Your task to perform on an android device: Open Amazon Image 0: 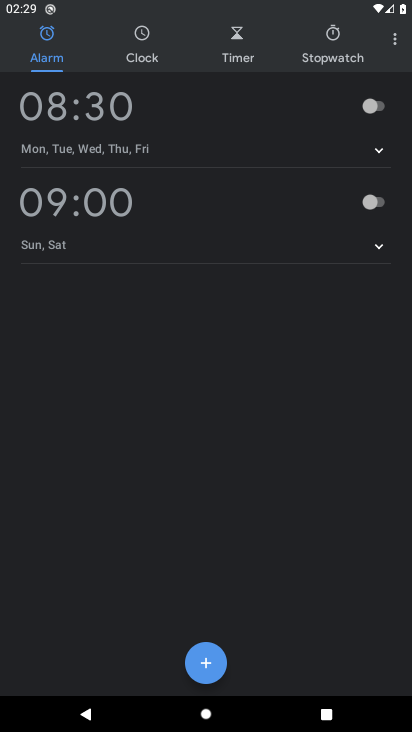
Step 0: press home button
Your task to perform on an android device: Open Amazon Image 1: 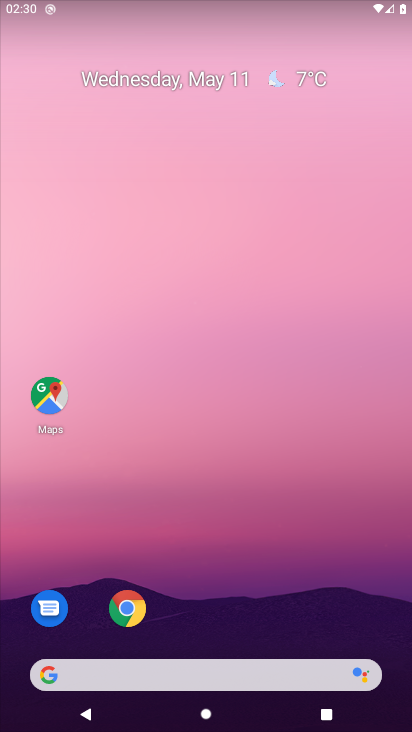
Step 1: click (132, 607)
Your task to perform on an android device: Open Amazon Image 2: 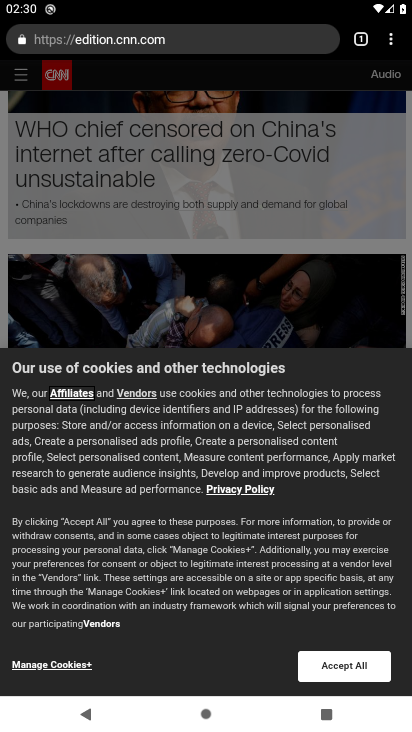
Step 2: click (367, 28)
Your task to perform on an android device: Open Amazon Image 3: 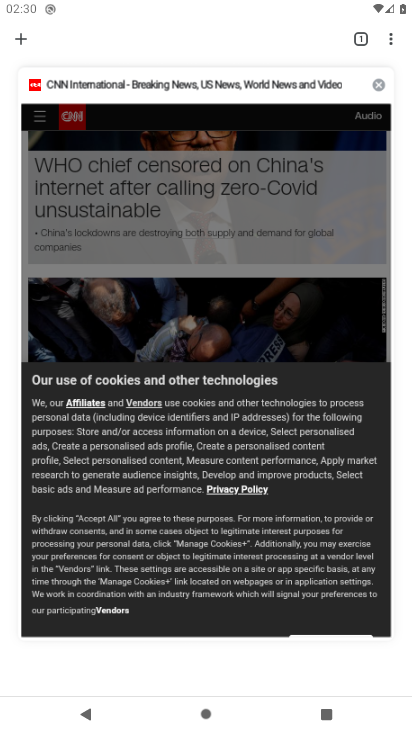
Step 3: click (376, 78)
Your task to perform on an android device: Open Amazon Image 4: 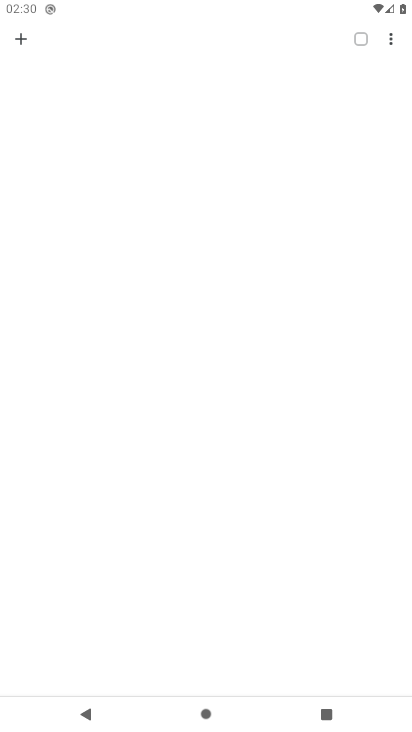
Step 4: click (18, 35)
Your task to perform on an android device: Open Amazon Image 5: 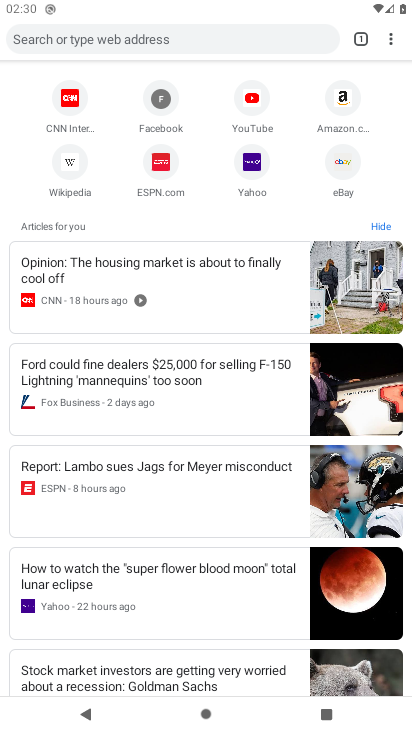
Step 5: click (347, 99)
Your task to perform on an android device: Open Amazon Image 6: 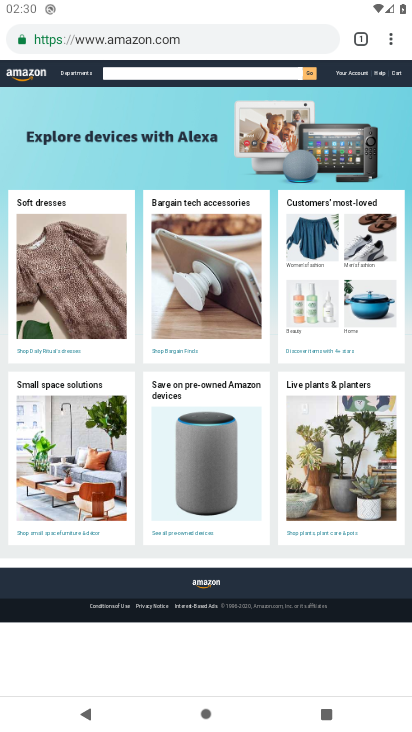
Step 6: task complete